Your task to perform on an android device: Find coffee shops on Maps Image 0: 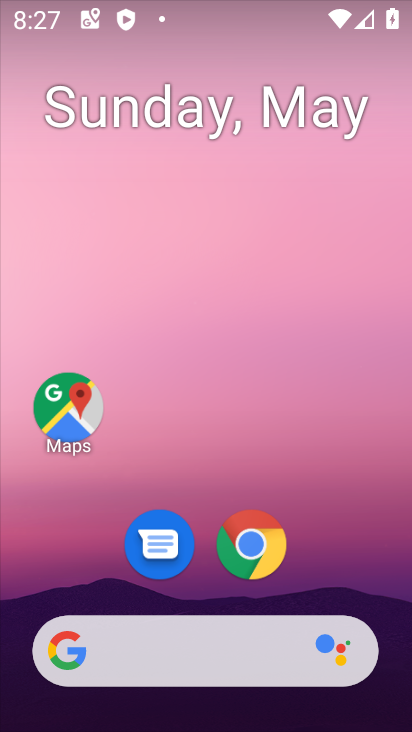
Step 0: drag from (352, 566) to (242, 28)
Your task to perform on an android device: Find coffee shops on Maps Image 1: 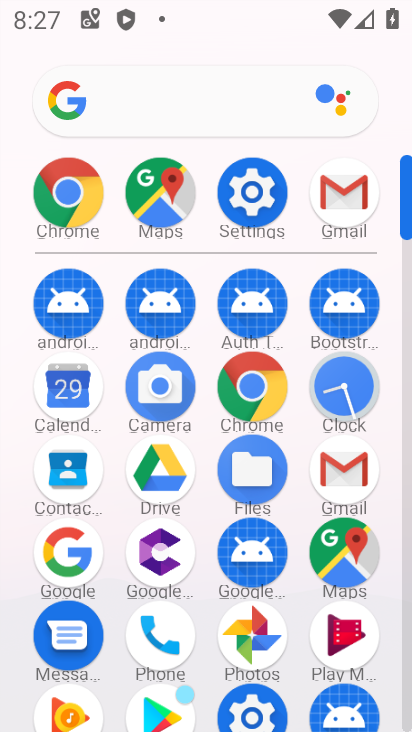
Step 1: drag from (7, 555) to (30, 208)
Your task to perform on an android device: Find coffee shops on Maps Image 2: 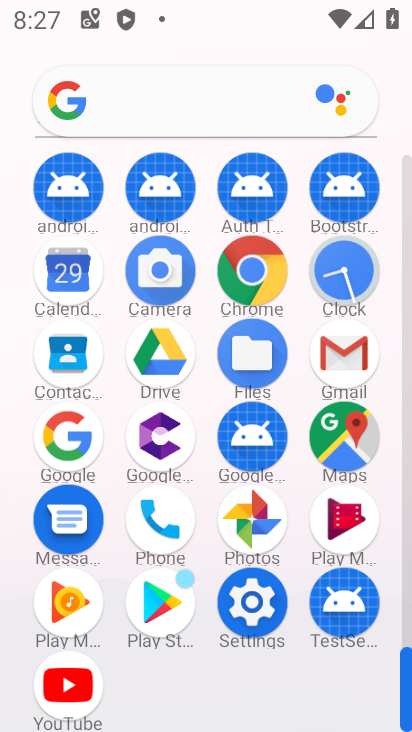
Step 2: click (338, 437)
Your task to perform on an android device: Find coffee shops on Maps Image 3: 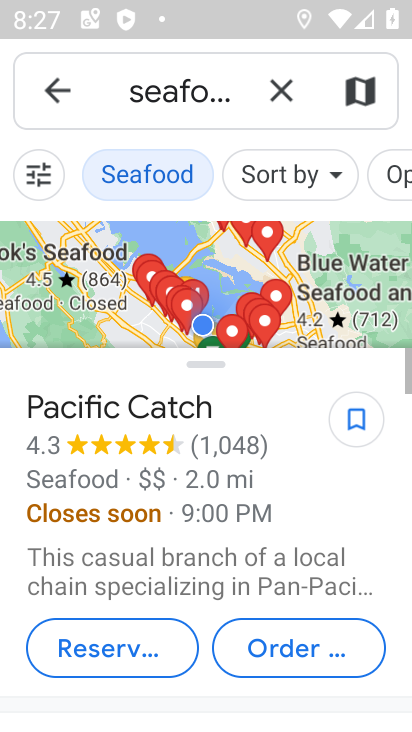
Step 3: click (286, 97)
Your task to perform on an android device: Find coffee shops on Maps Image 4: 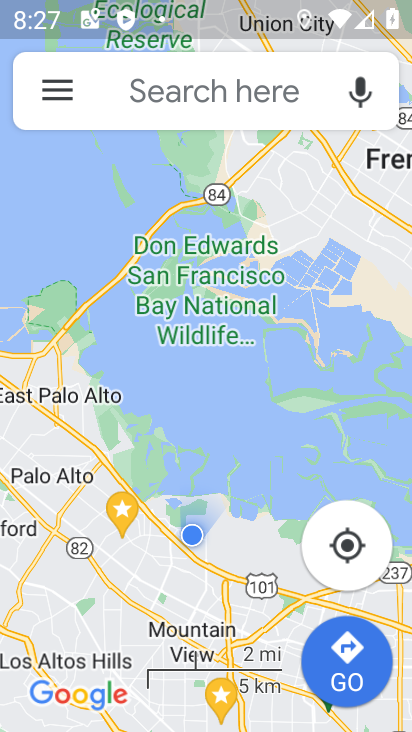
Step 4: click (314, 91)
Your task to perform on an android device: Find coffee shops on Maps Image 5: 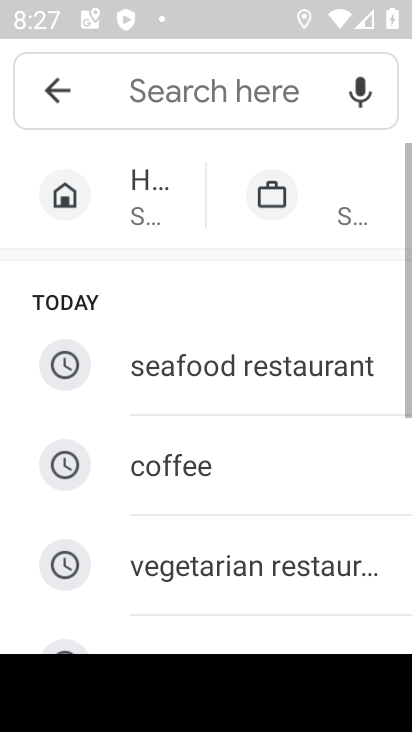
Step 5: click (184, 478)
Your task to perform on an android device: Find coffee shops on Maps Image 6: 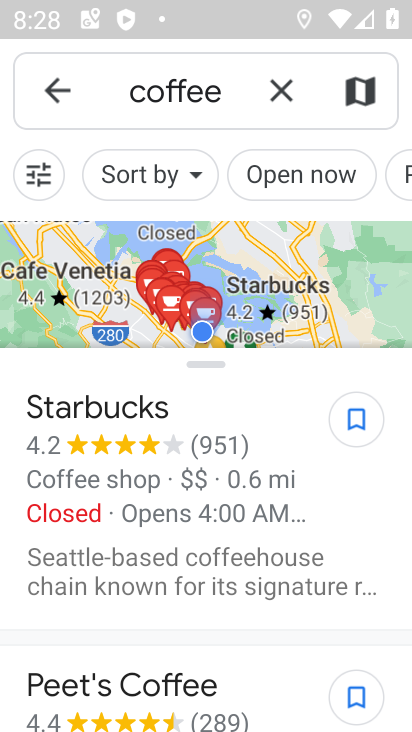
Step 6: task complete